Your task to perform on an android device: Open Google Chrome and open the bookmarks view Image 0: 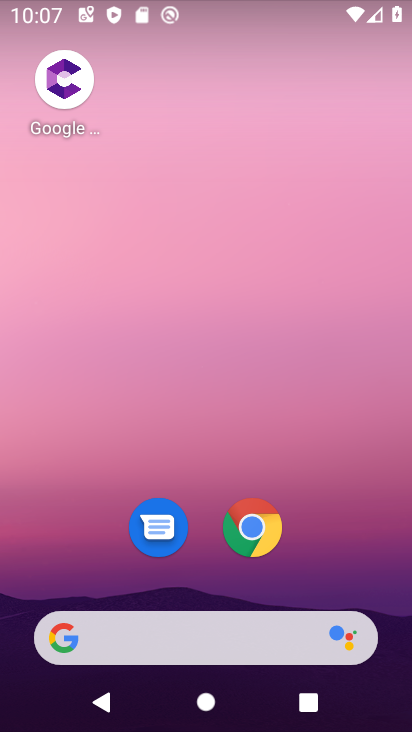
Step 0: drag from (329, 558) to (230, 16)
Your task to perform on an android device: Open Google Chrome and open the bookmarks view Image 1: 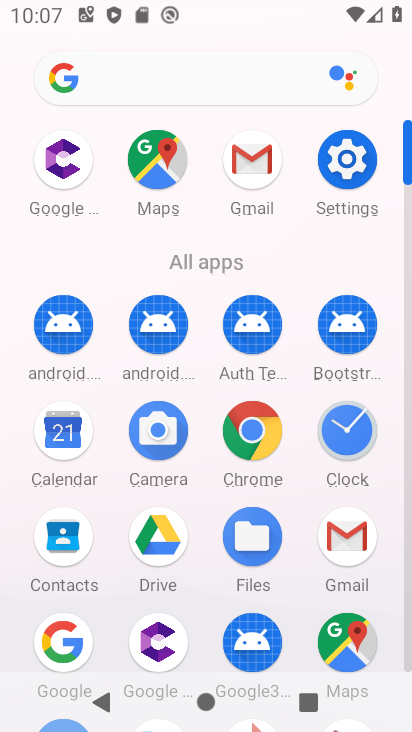
Step 1: click (240, 421)
Your task to perform on an android device: Open Google Chrome and open the bookmarks view Image 2: 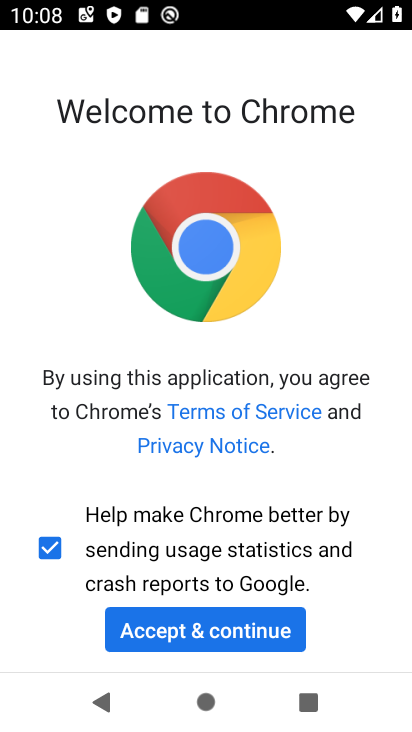
Step 2: click (211, 630)
Your task to perform on an android device: Open Google Chrome and open the bookmarks view Image 3: 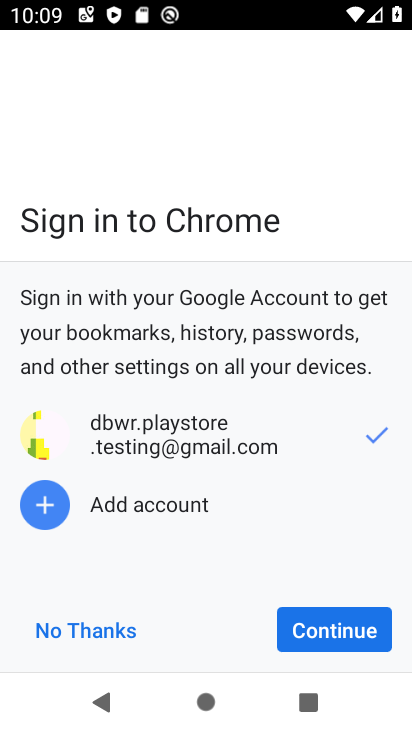
Step 3: click (95, 648)
Your task to perform on an android device: Open Google Chrome and open the bookmarks view Image 4: 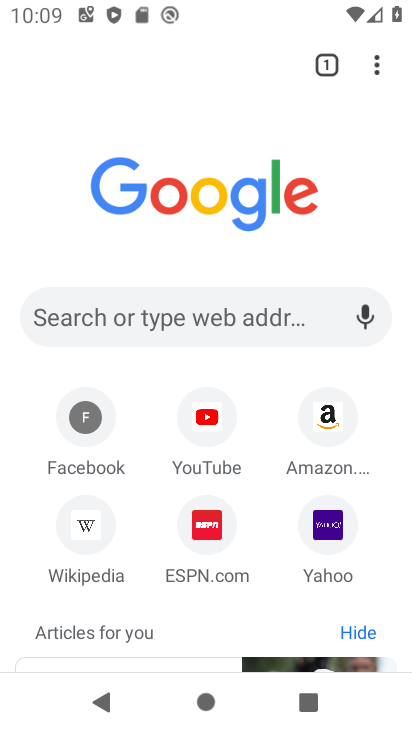
Step 4: click (389, 68)
Your task to perform on an android device: Open Google Chrome and open the bookmarks view Image 5: 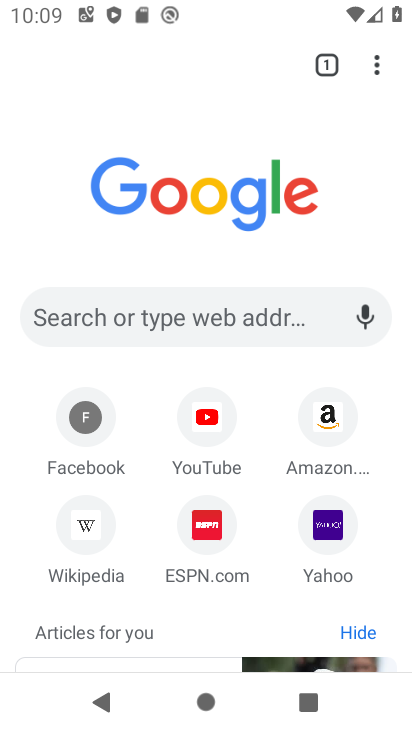
Step 5: drag from (380, 87) to (202, 236)
Your task to perform on an android device: Open Google Chrome and open the bookmarks view Image 6: 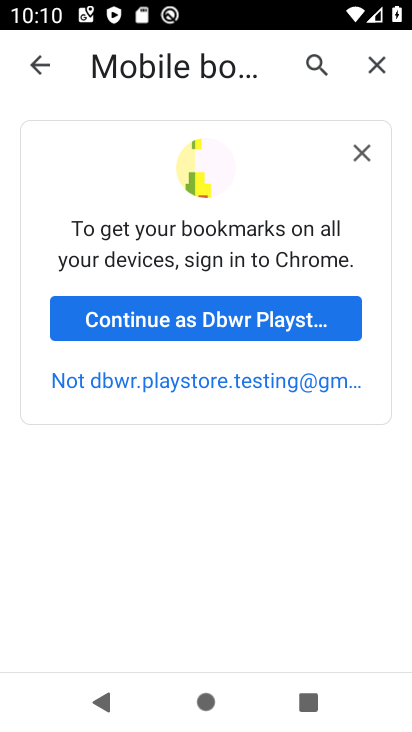
Step 6: click (208, 323)
Your task to perform on an android device: Open Google Chrome and open the bookmarks view Image 7: 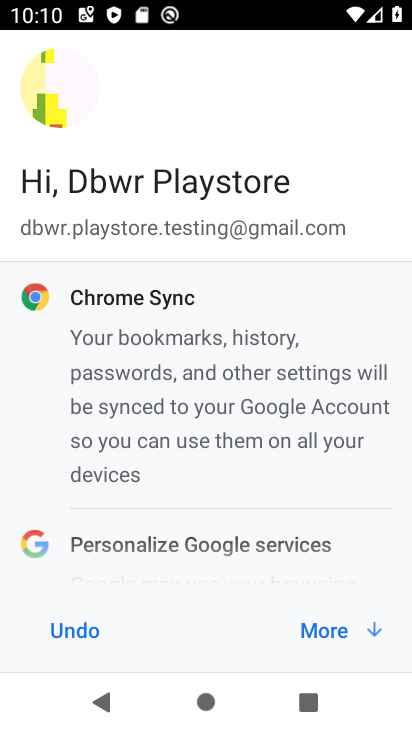
Step 7: click (347, 637)
Your task to perform on an android device: Open Google Chrome and open the bookmarks view Image 8: 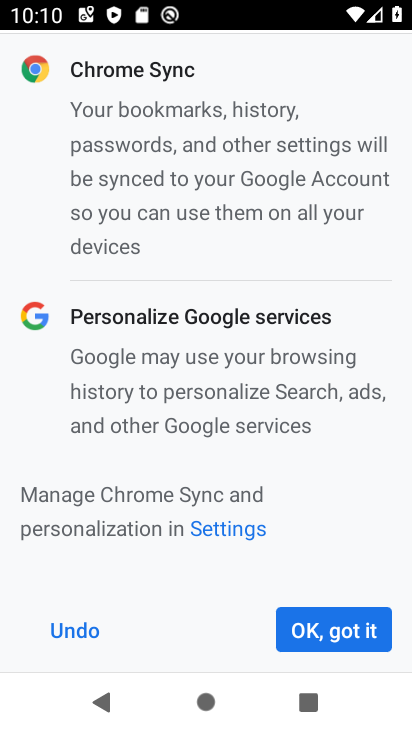
Step 8: click (347, 636)
Your task to perform on an android device: Open Google Chrome and open the bookmarks view Image 9: 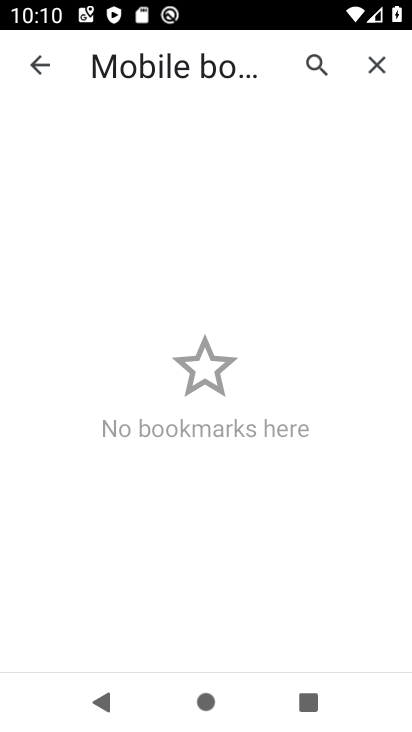
Step 9: task complete